Your task to perform on an android device: add a contact in the contacts app Image 0: 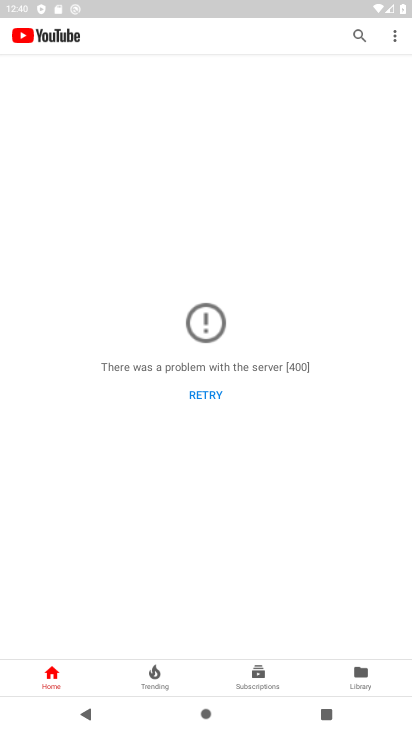
Step 0: press home button
Your task to perform on an android device: add a contact in the contacts app Image 1: 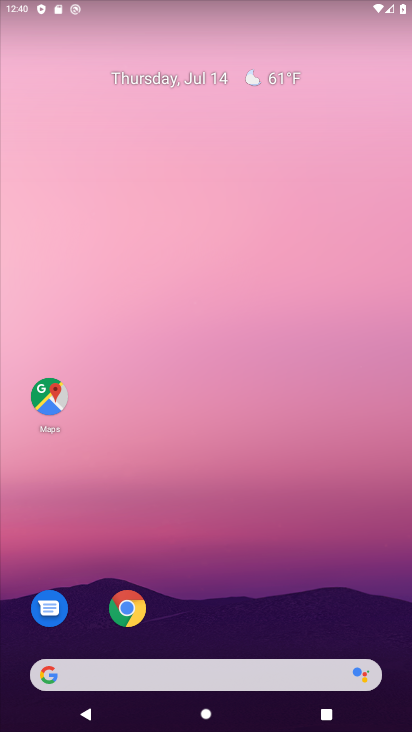
Step 1: drag from (300, 633) to (294, 179)
Your task to perform on an android device: add a contact in the contacts app Image 2: 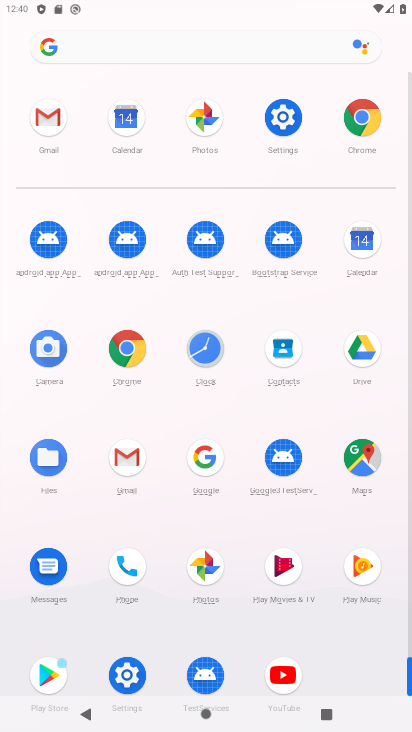
Step 2: click (286, 351)
Your task to perform on an android device: add a contact in the contacts app Image 3: 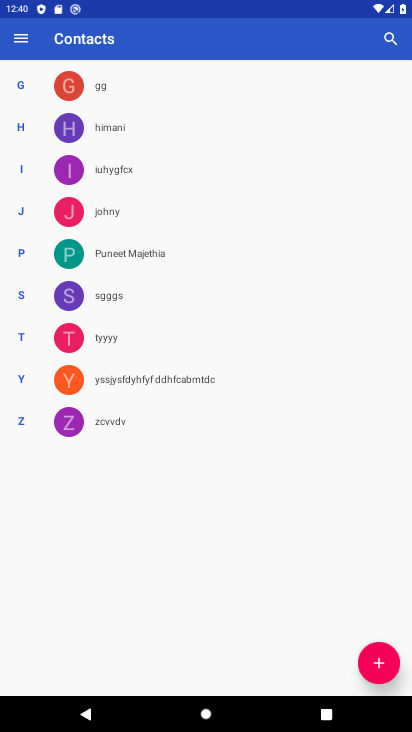
Step 3: click (373, 670)
Your task to perform on an android device: add a contact in the contacts app Image 4: 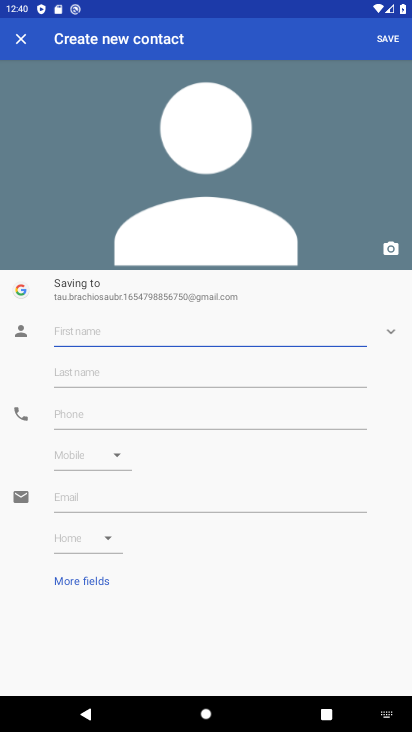
Step 4: type "luv"
Your task to perform on an android device: add a contact in the contacts app Image 5: 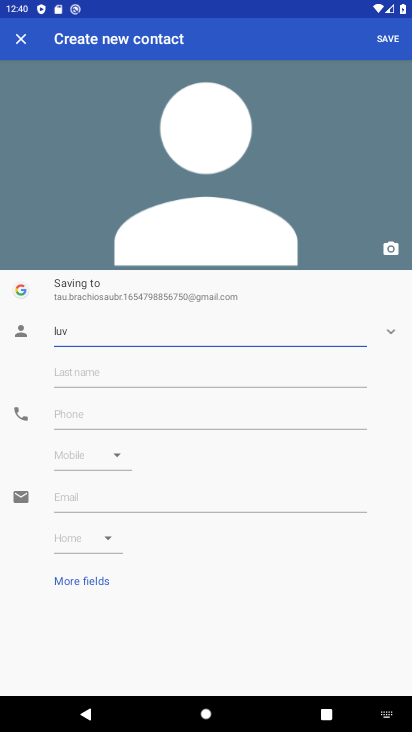
Step 5: click (302, 405)
Your task to perform on an android device: add a contact in the contacts app Image 6: 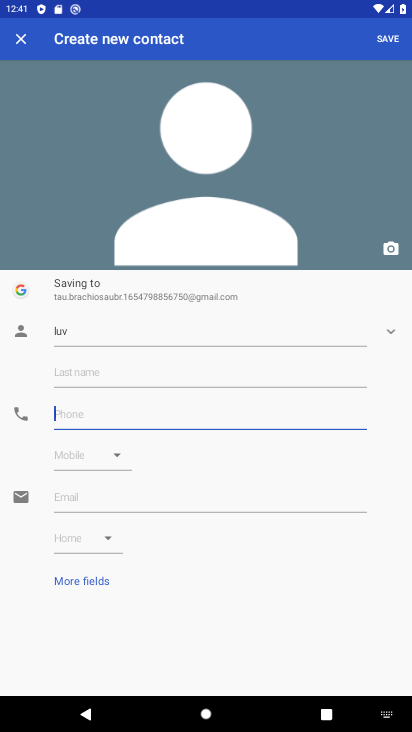
Step 6: type "1234567890"
Your task to perform on an android device: add a contact in the contacts app Image 7: 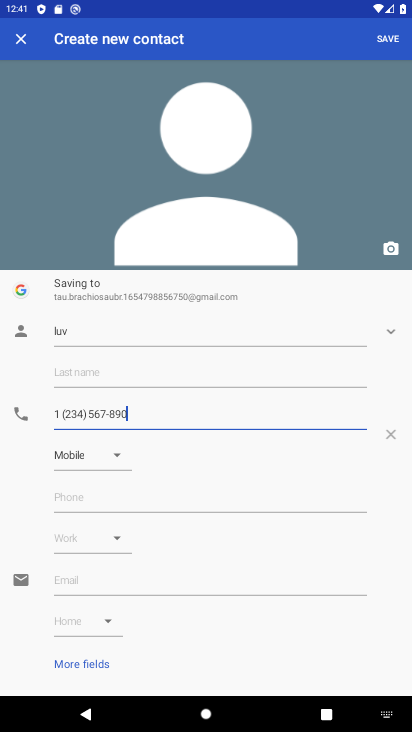
Step 7: click (387, 44)
Your task to perform on an android device: add a contact in the contacts app Image 8: 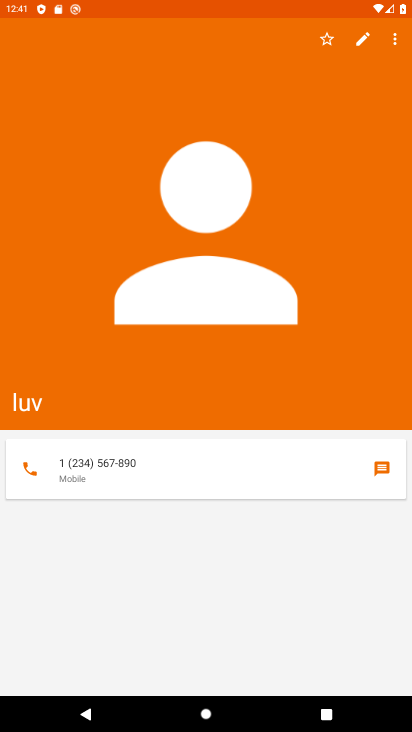
Step 8: task complete